Your task to perform on an android device: turn off location history Image 0: 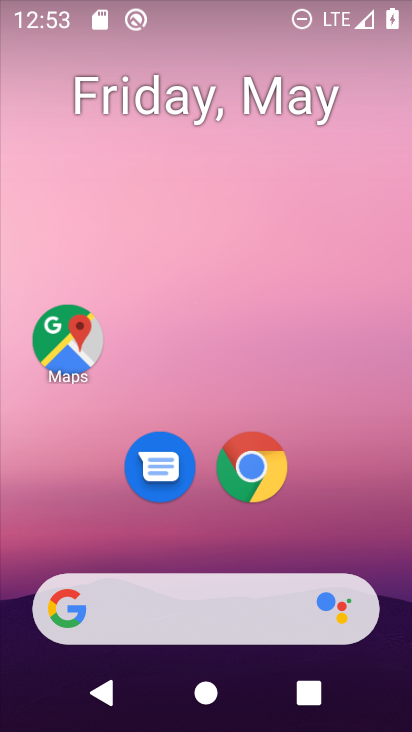
Step 0: drag from (143, 538) to (182, 116)
Your task to perform on an android device: turn off location history Image 1: 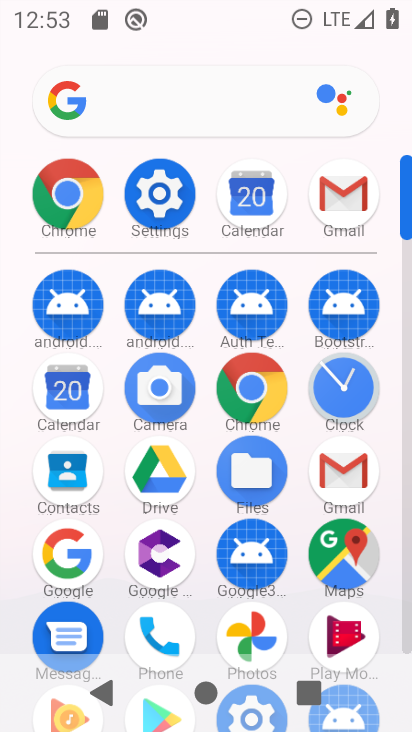
Step 1: click (164, 206)
Your task to perform on an android device: turn off location history Image 2: 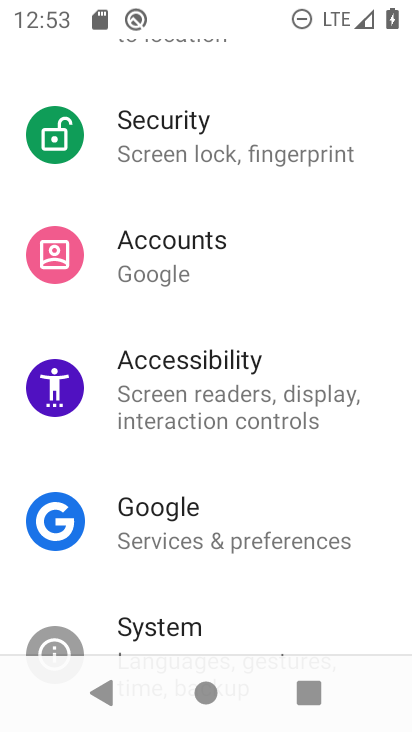
Step 2: drag from (283, 242) to (261, 654)
Your task to perform on an android device: turn off location history Image 3: 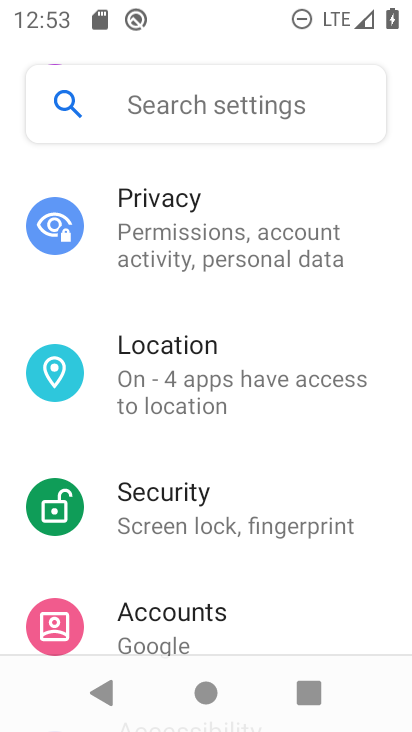
Step 3: click (242, 391)
Your task to perform on an android device: turn off location history Image 4: 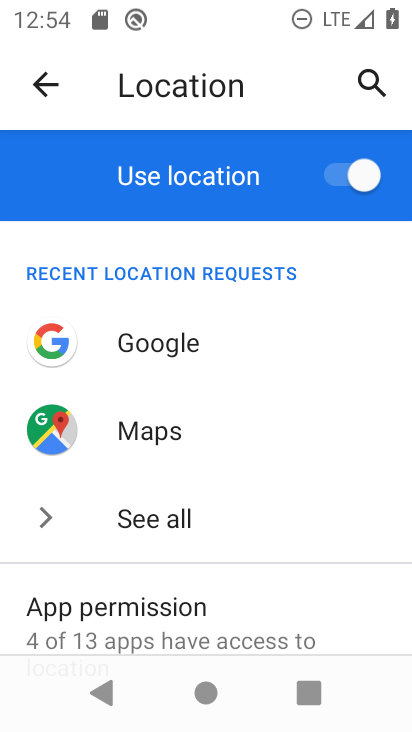
Step 4: drag from (209, 631) to (243, 128)
Your task to perform on an android device: turn off location history Image 5: 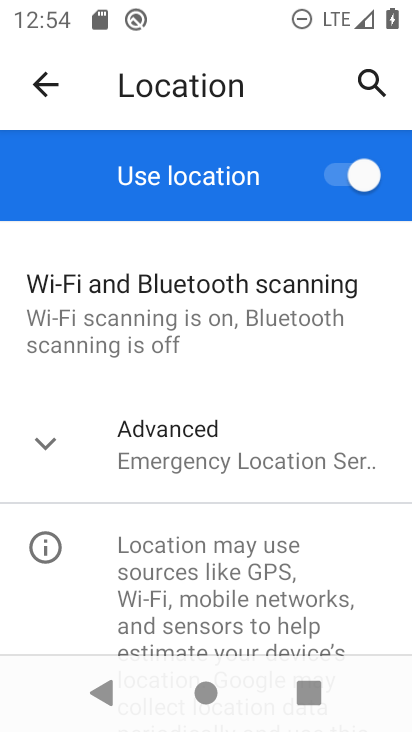
Step 5: click (204, 464)
Your task to perform on an android device: turn off location history Image 6: 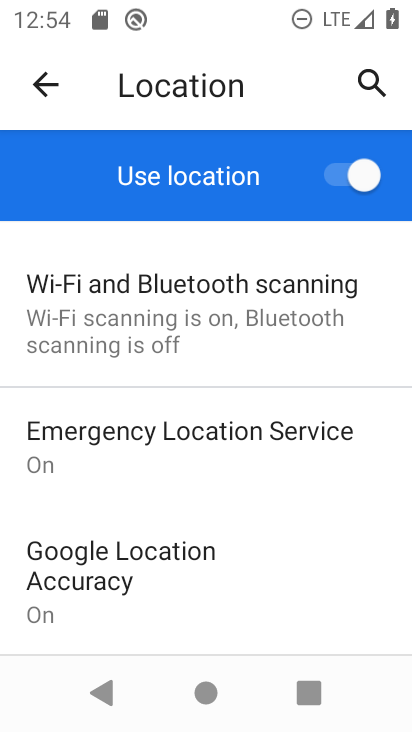
Step 6: drag from (172, 585) to (221, 152)
Your task to perform on an android device: turn off location history Image 7: 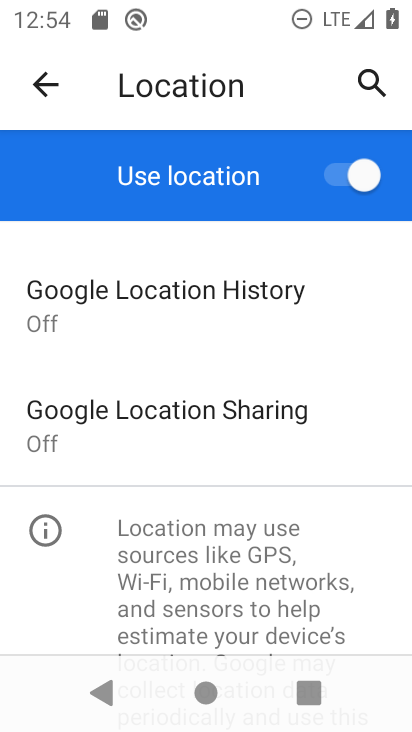
Step 7: click (187, 309)
Your task to perform on an android device: turn off location history Image 8: 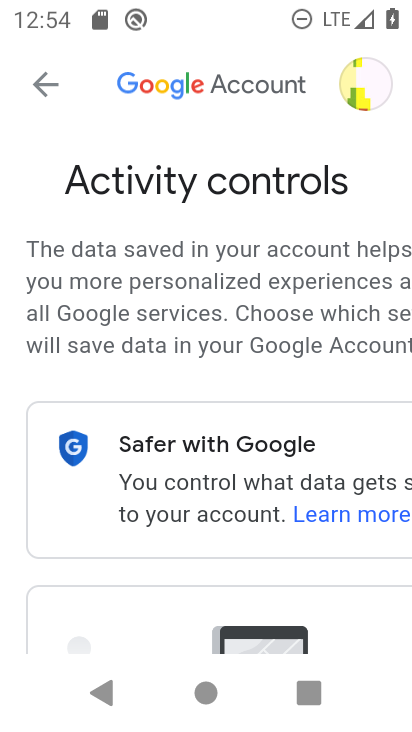
Step 8: task complete